Your task to perform on an android device: check battery use Image 0: 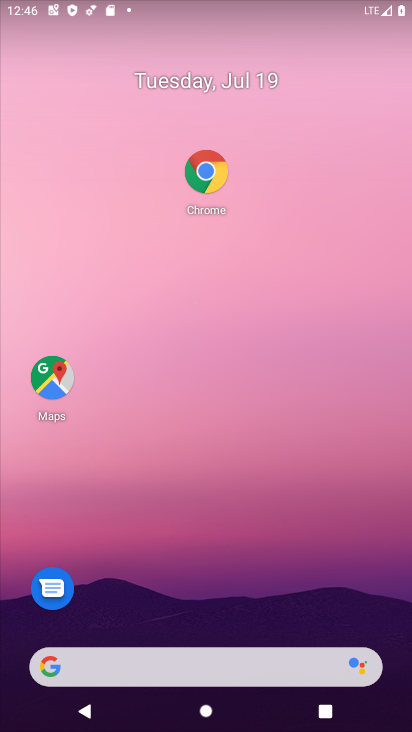
Step 0: drag from (293, 3) to (287, 689)
Your task to perform on an android device: check battery use Image 1: 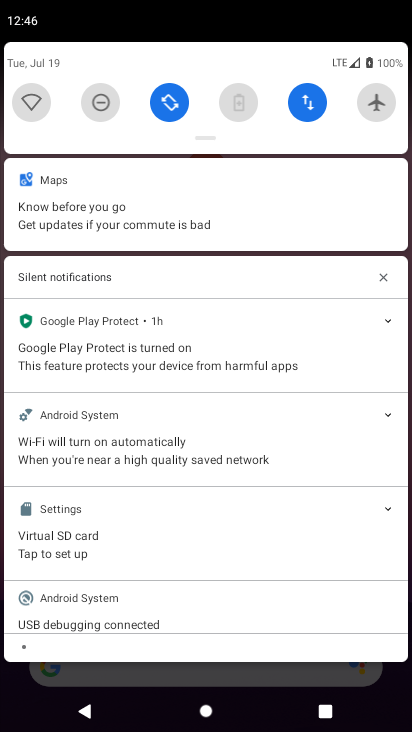
Step 1: click (228, 115)
Your task to perform on an android device: check battery use Image 2: 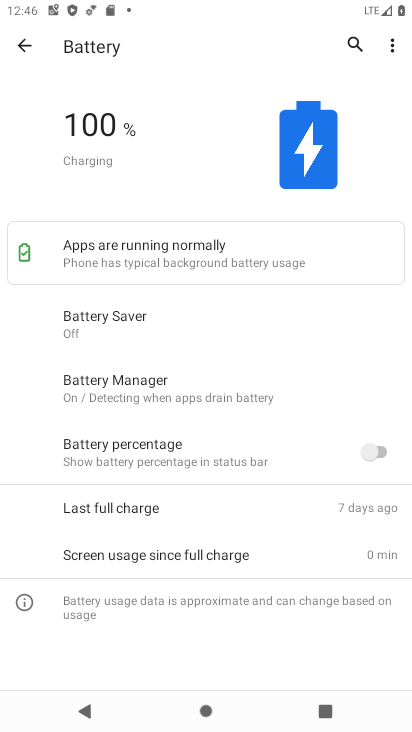
Step 2: click (388, 48)
Your task to perform on an android device: check battery use Image 3: 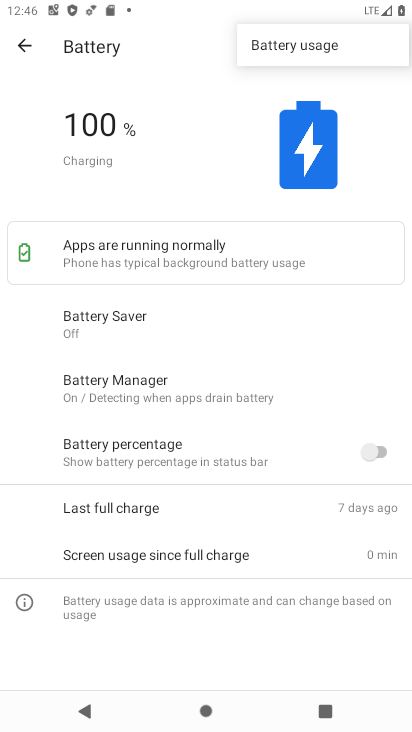
Step 3: click (289, 56)
Your task to perform on an android device: check battery use Image 4: 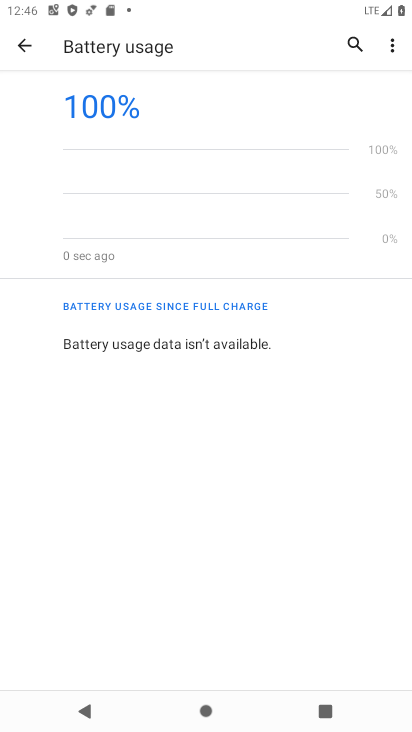
Step 4: task complete